Your task to perform on an android device: open app "Messages" (install if not already installed), go to login, and select forgot password Image 0: 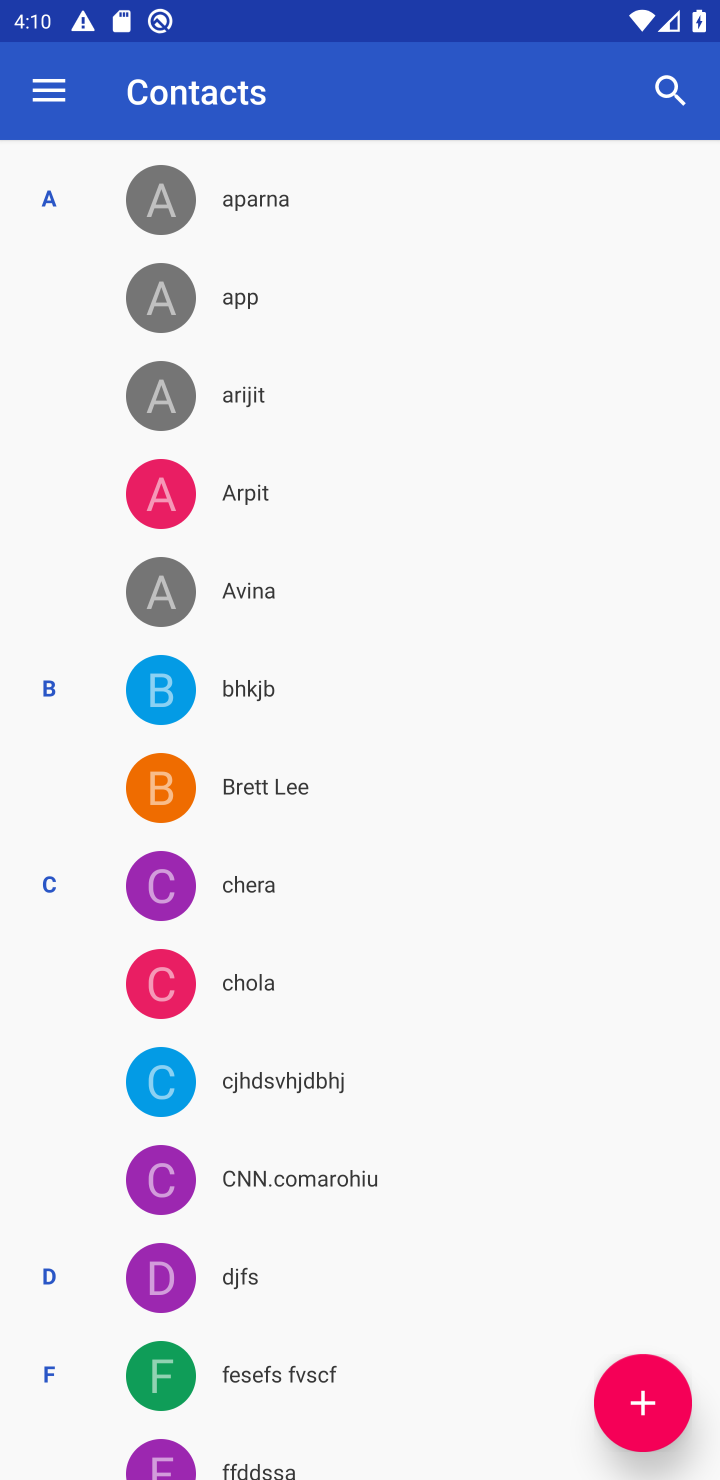
Step 0: press home button
Your task to perform on an android device: open app "Messages" (install if not already installed), go to login, and select forgot password Image 1: 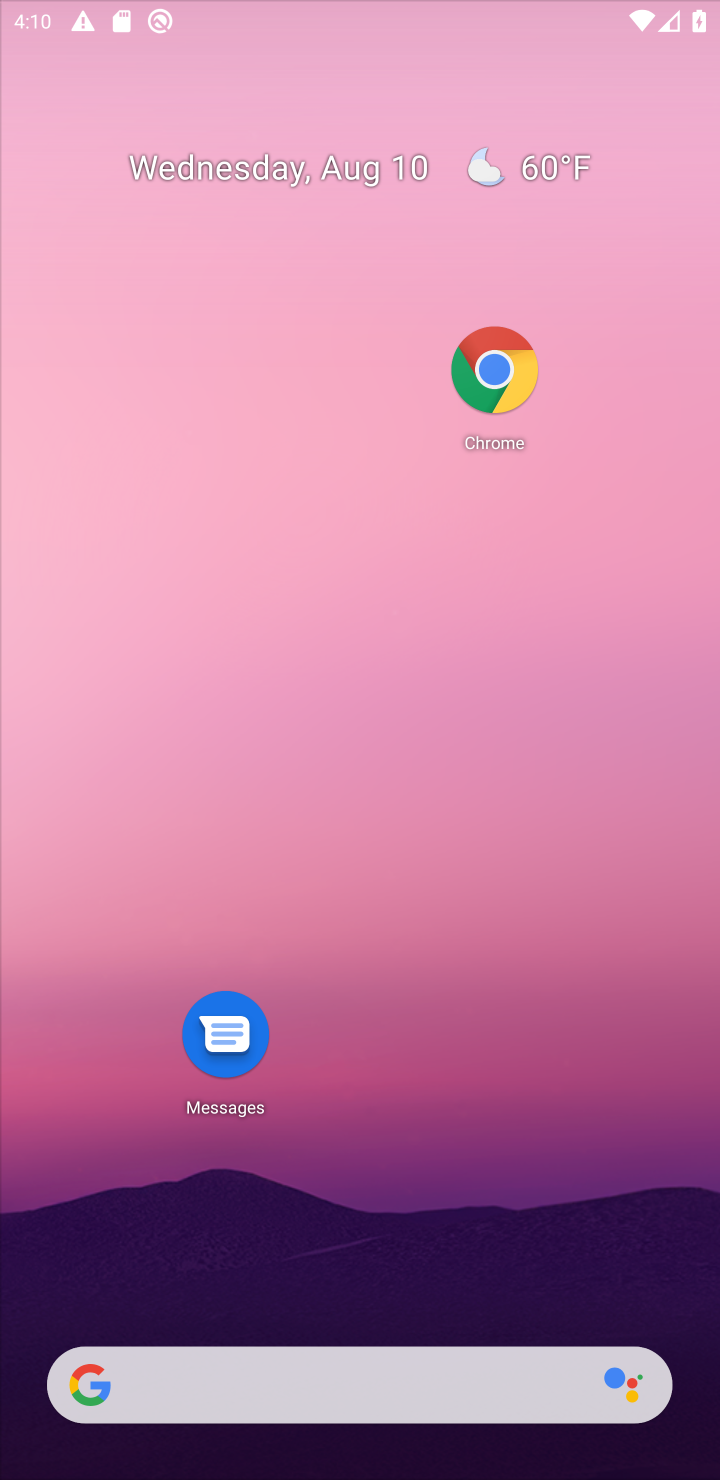
Step 1: drag from (220, 1337) to (377, 292)
Your task to perform on an android device: open app "Messages" (install if not already installed), go to login, and select forgot password Image 2: 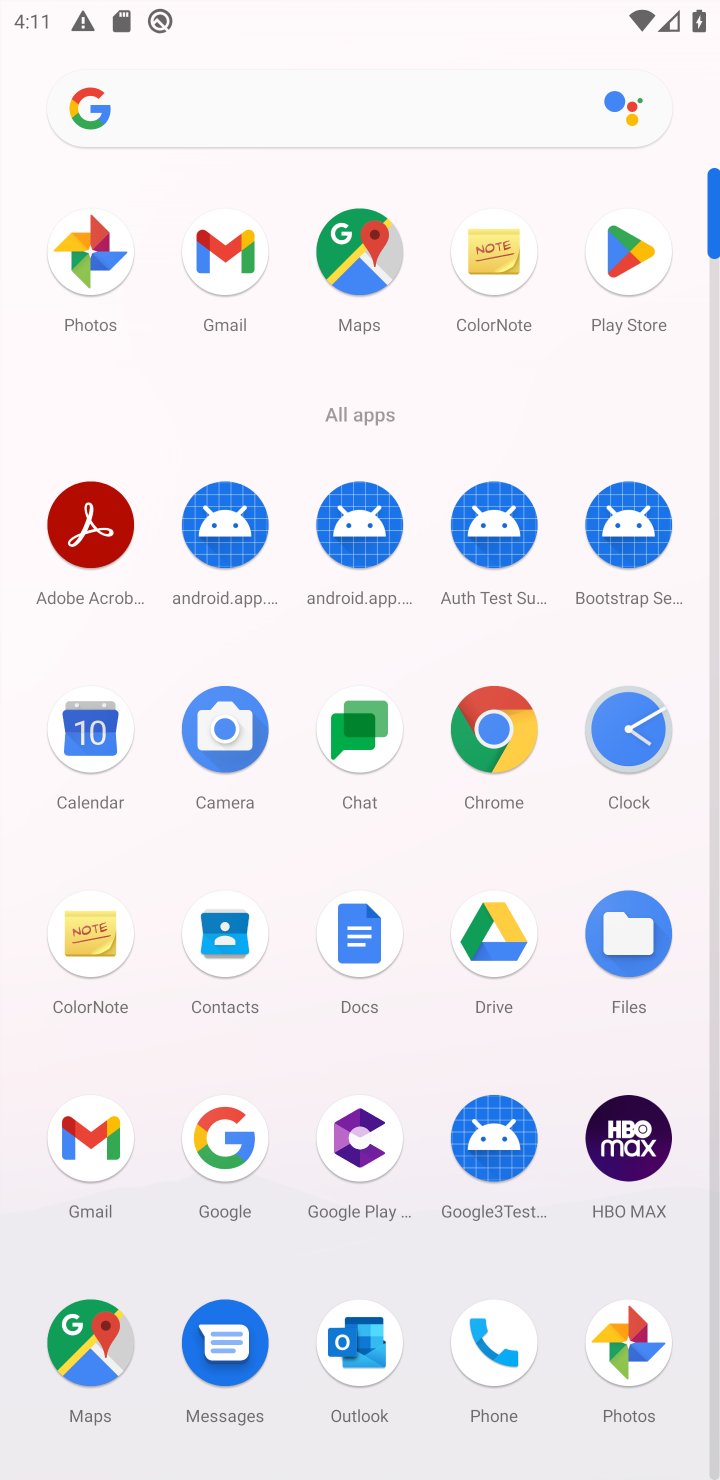
Step 2: click (620, 241)
Your task to perform on an android device: open app "Messages" (install if not already installed), go to login, and select forgot password Image 3: 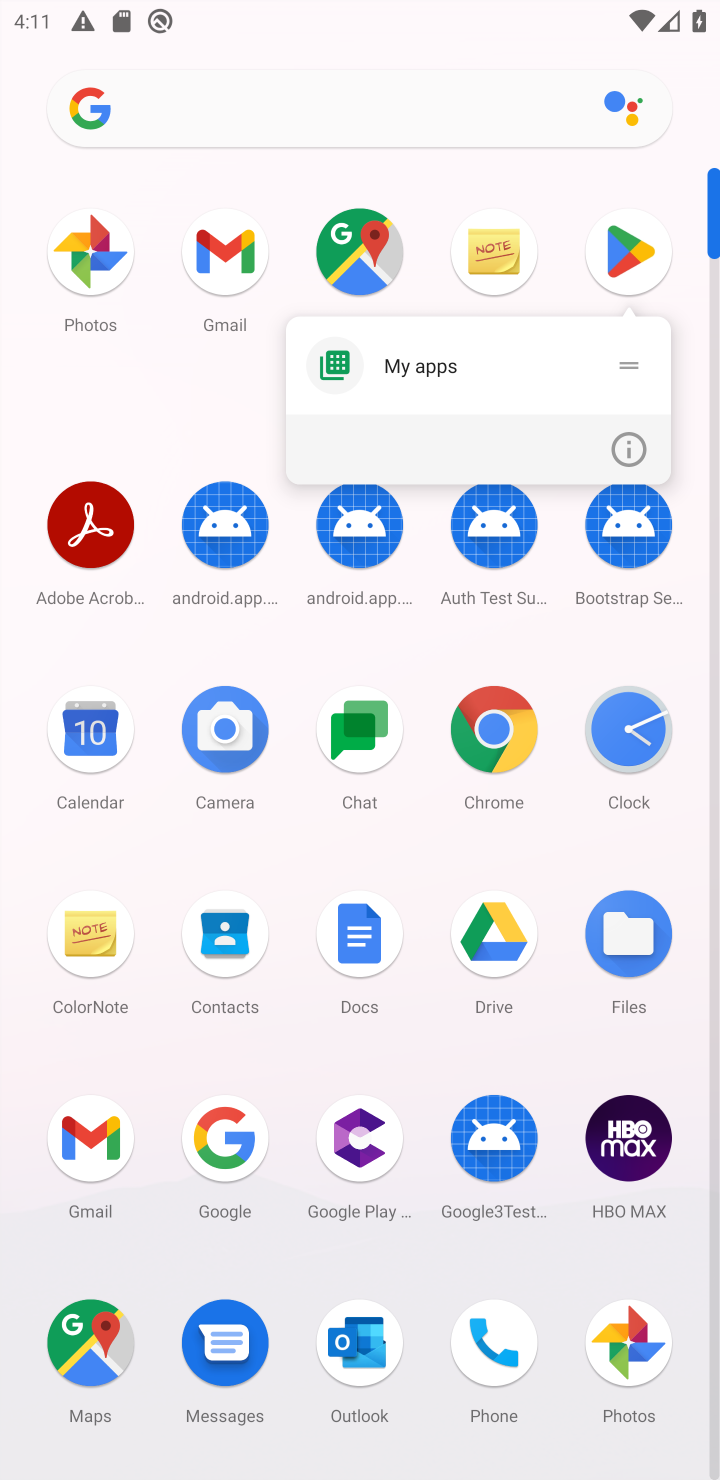
Step 3: click (650, 234)
Your task to perform on an android device: open app "Messages" (install if not already installed), go to login, and select forgot password Image 4: 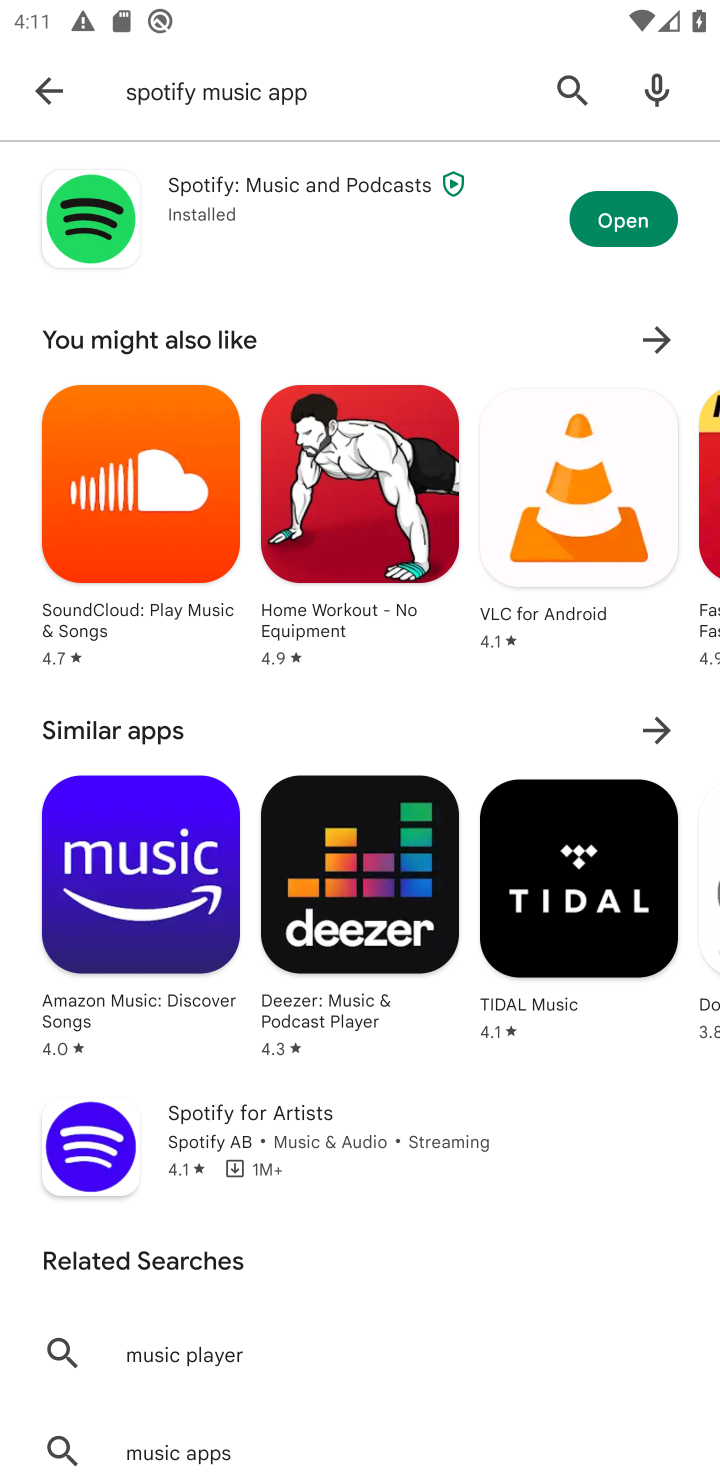
Step 4: click (52, 75)
Your task to perform on an android device: open app "Messages" (install if not already installed), go to login, and select forgot password Image 5: 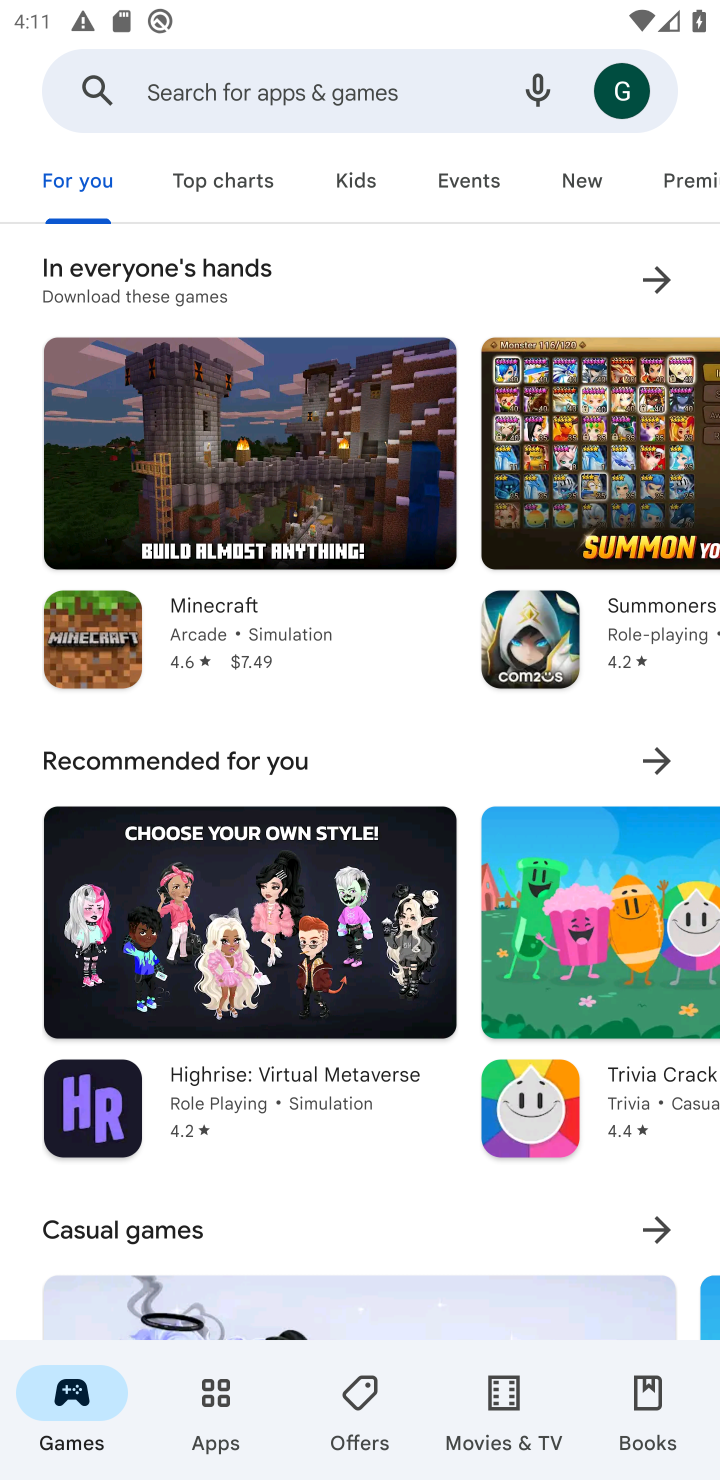
Step 5: click (305, 86)
Your task to perform on an android device: open app "Messages" (install if not already installed), go to login, and select forgot password Image 6: 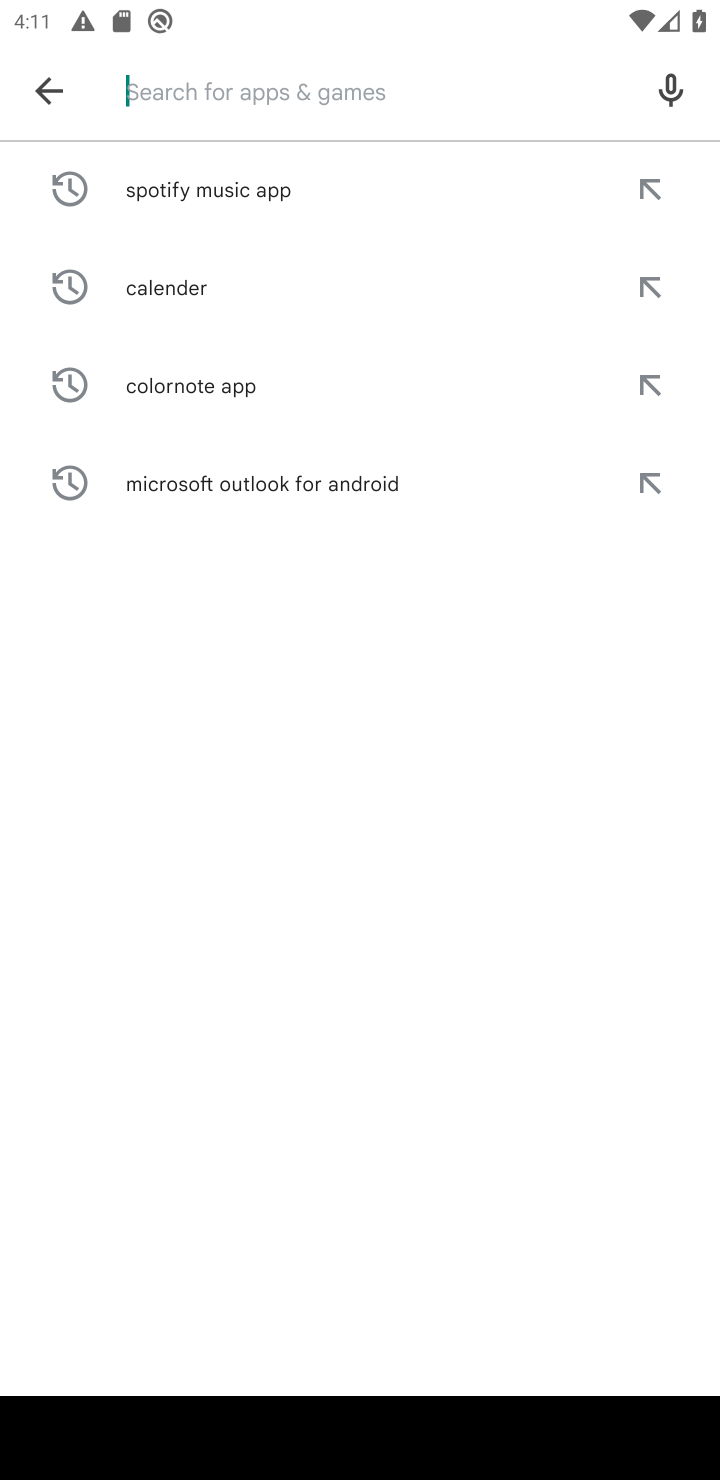
Step 6: type "messages "
Your task to perform on an android device: open app "Messages" (install if not already installed), go to login, and select forgot password Image 7: 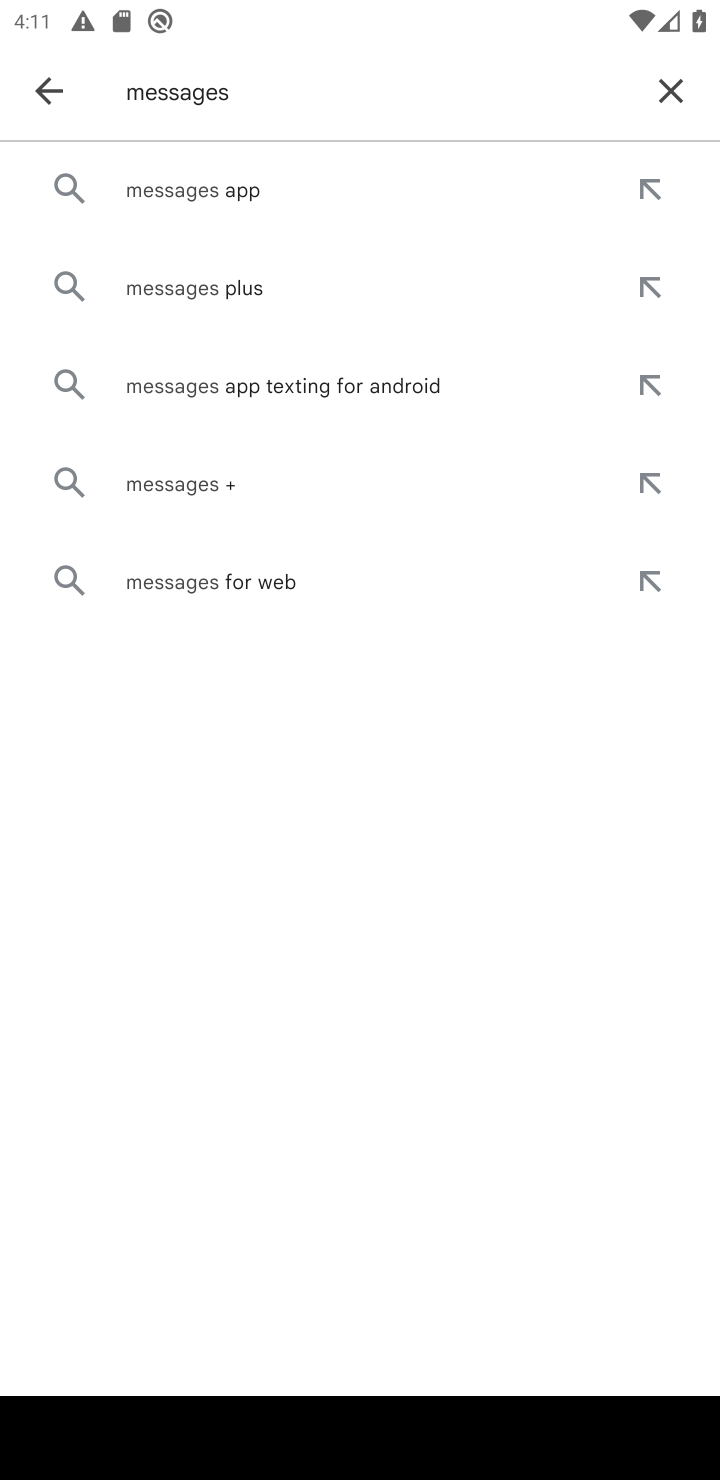
Step 7: click (216, 177)
Your task to perform on an android device: open app "Messages" (install if not already installed), go to login, and select forgot password Image 8: 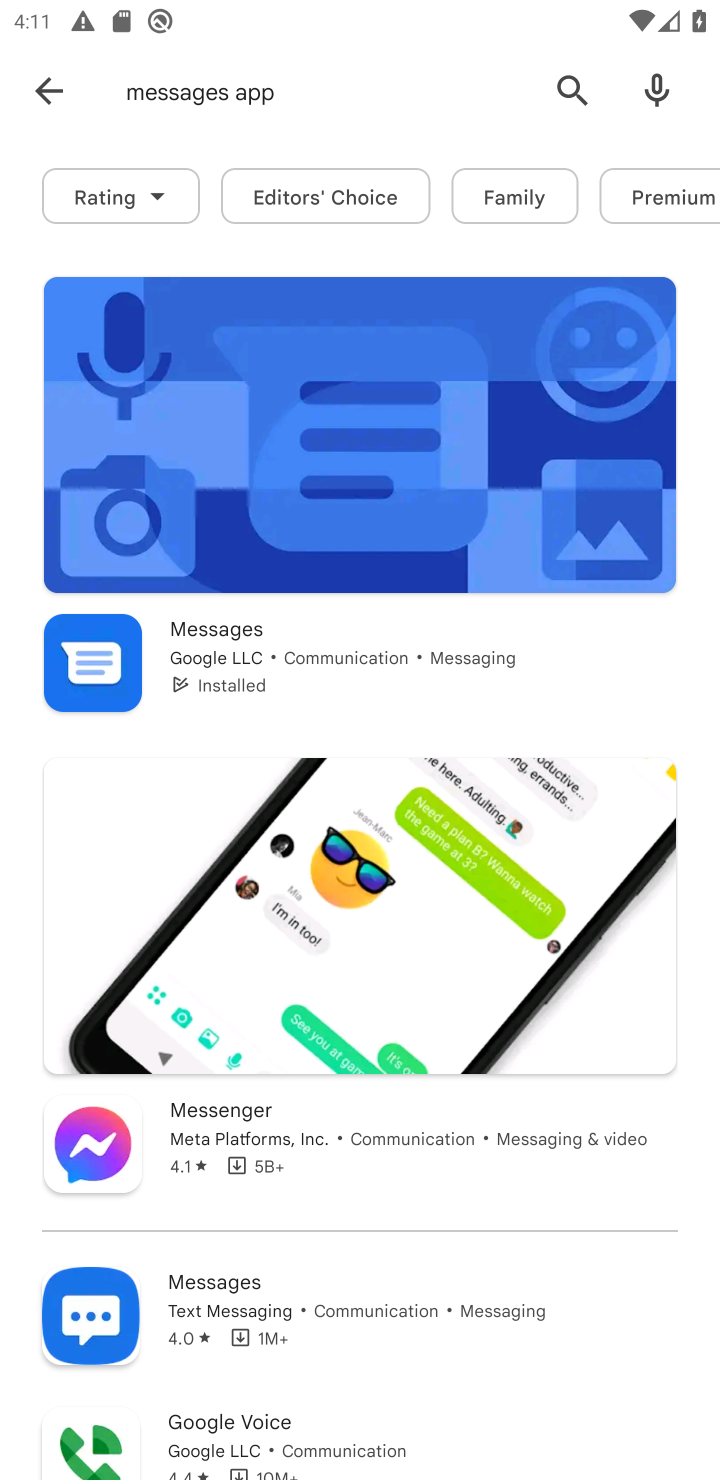
Step 8: click (186, 643)
Your task to perform on an android device: open app "Messages" (install if not already installed), go to login, and select forgot password Image 9: 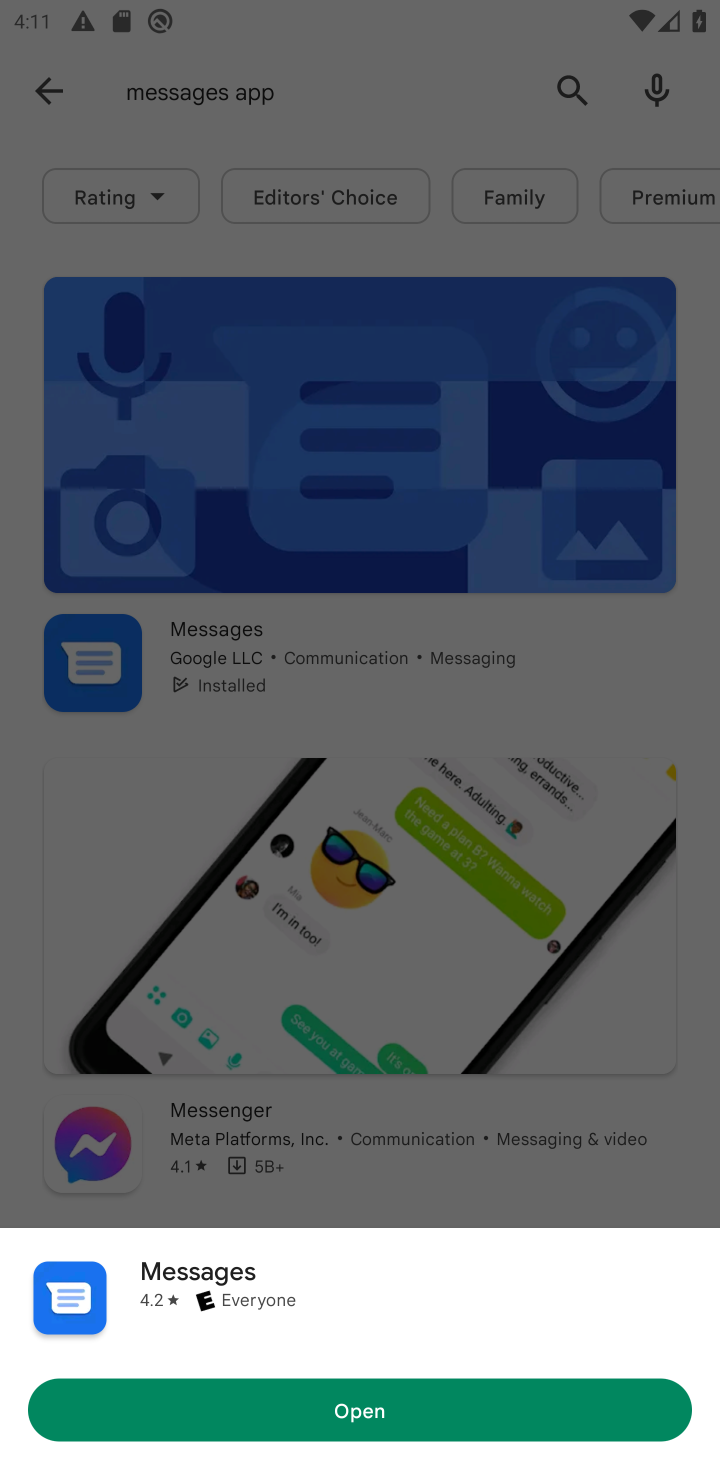
Step 9: click (409, 1395)
Your task to perform on an android device: open app "Messages" (install if not already installed), go to login, and select forgot password Image 10: 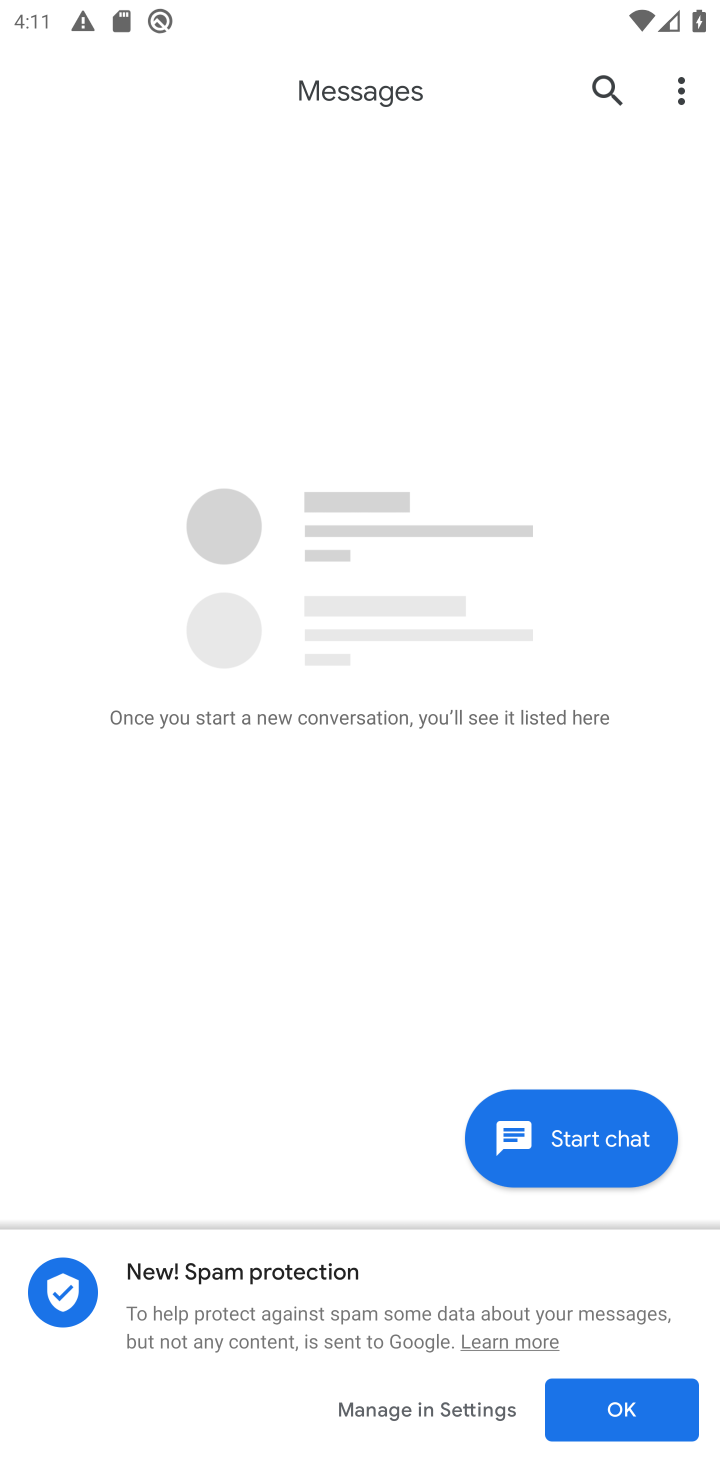
Step 10: click (583, 1405)
Your task to perform on an android device: open app "Messages" (install if not already installed), go to login, and select forgot password Image 11: 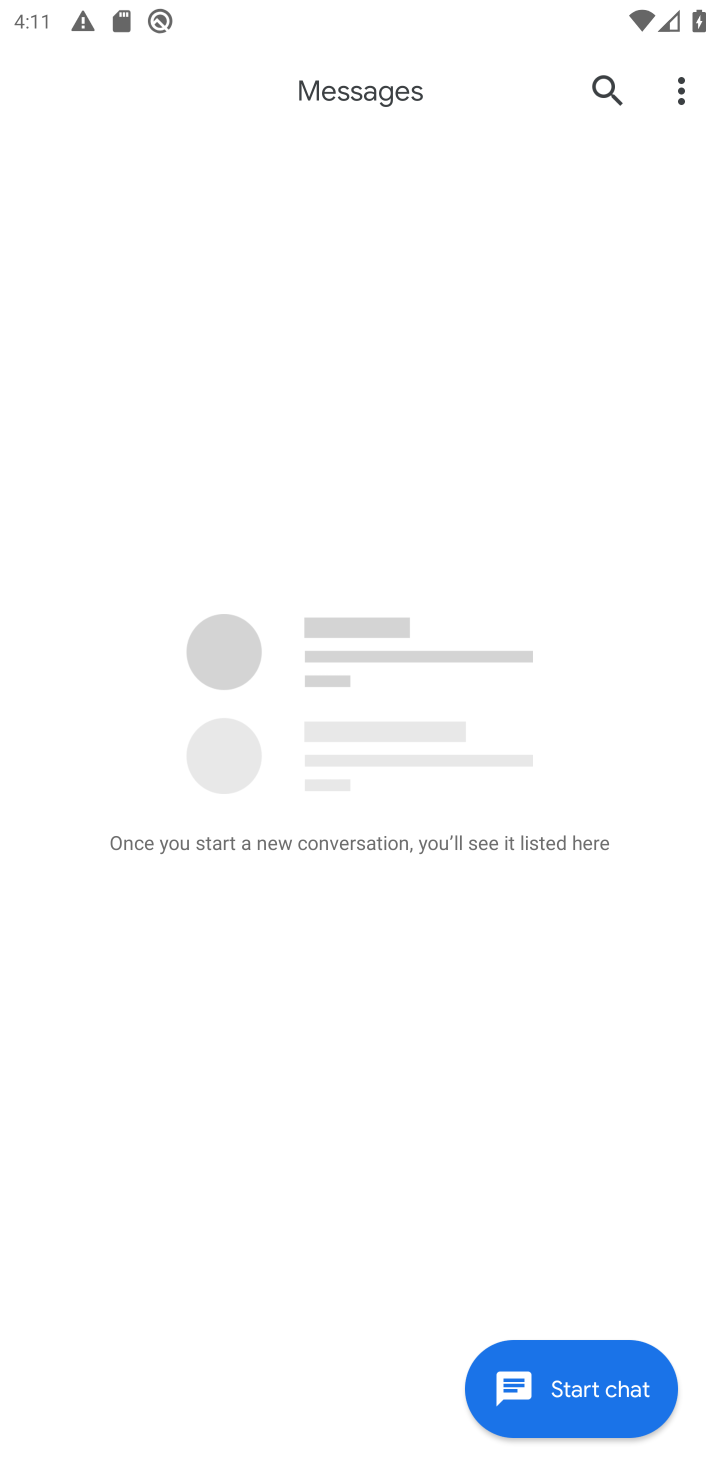
Step 11: click (661, 93)
Your task to perform on an android device: open app "Messages" (install if not already installed), go to login, and select forgot password Image 12: 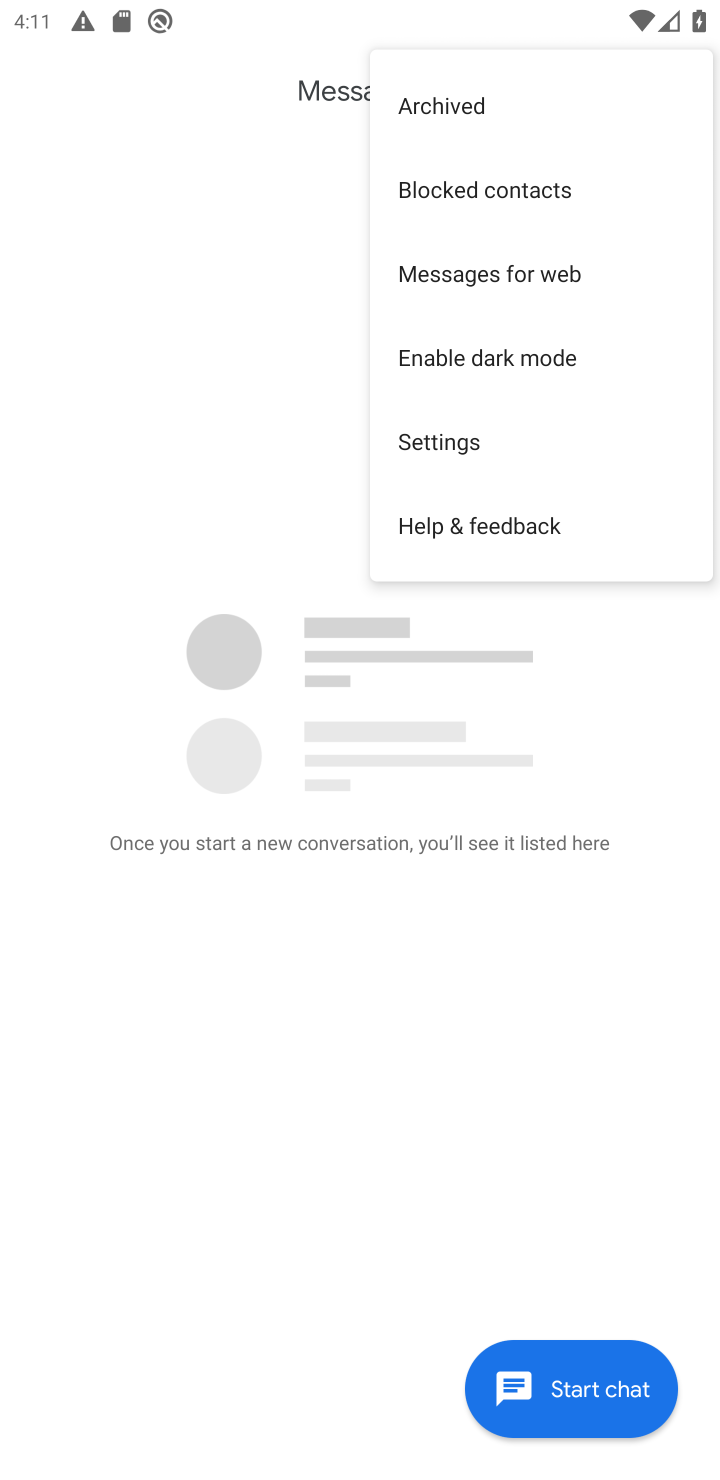
Step 12: click (504, 438)
Your task to perform on an android device: open app "Messages" (install if not already installed), go to login, and select forgot password Image 13: 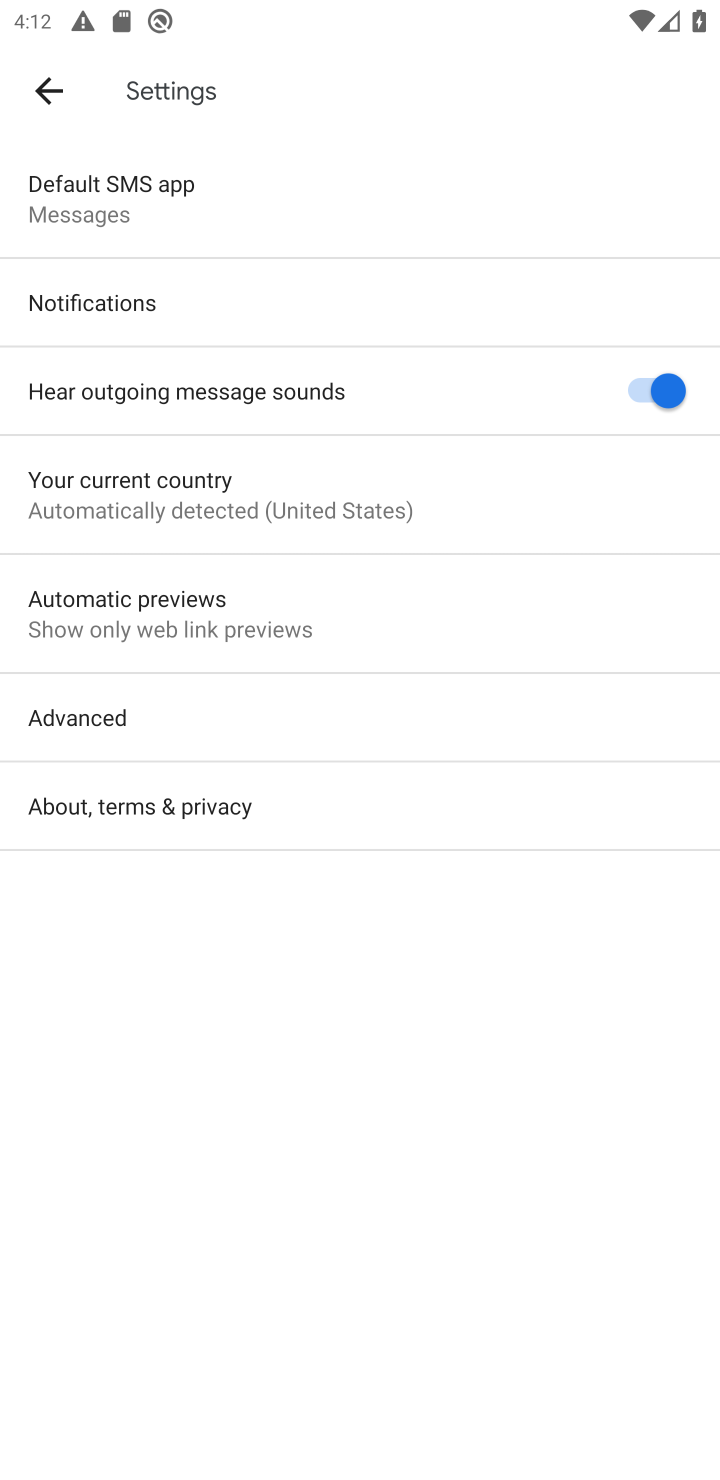
Step 13: click (47, 76)
Your task to perform on an android device: open app "Messages" (install if not already installed), go to login, and select forgot password Image 14: 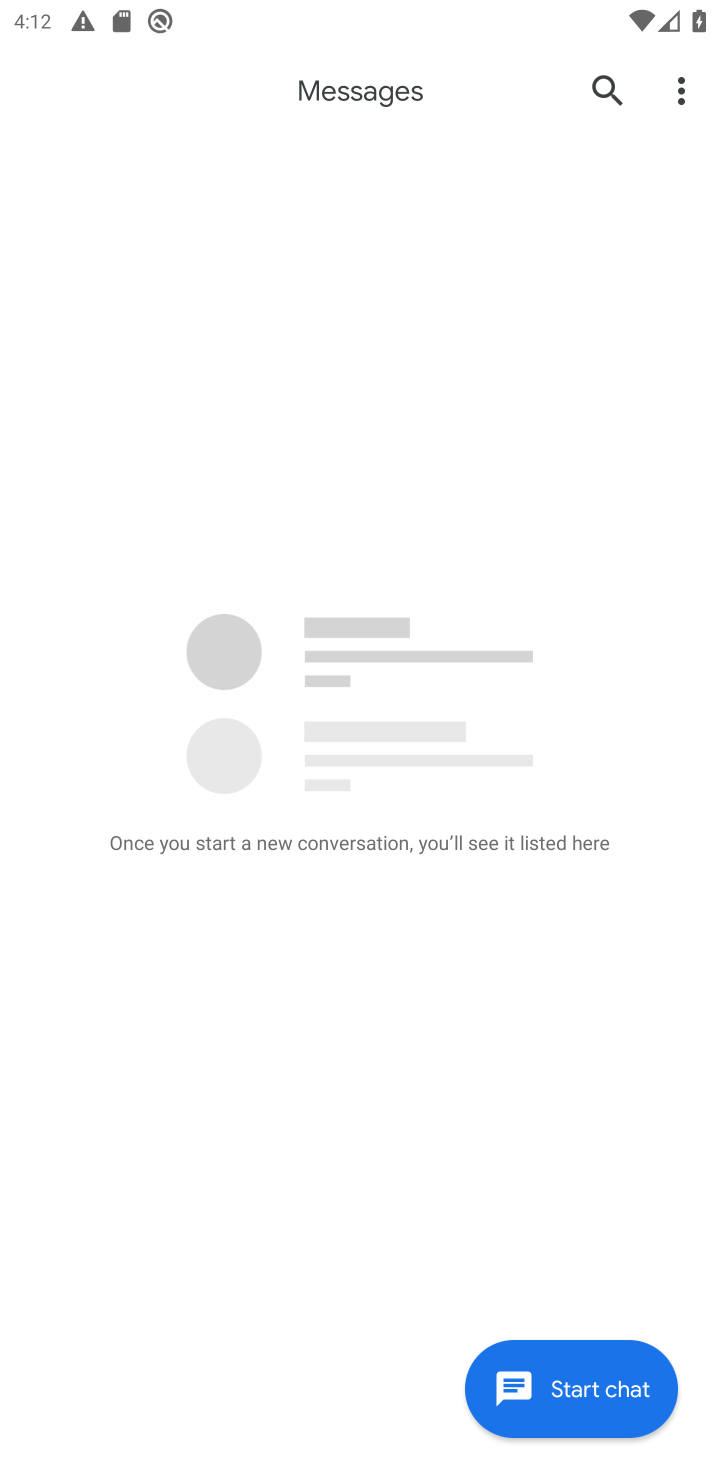
Step 14: click (679, 89)
Your task to perform on an android device: open app "Messages" (install if not already installed), go to login, and select forgot password Image 15: 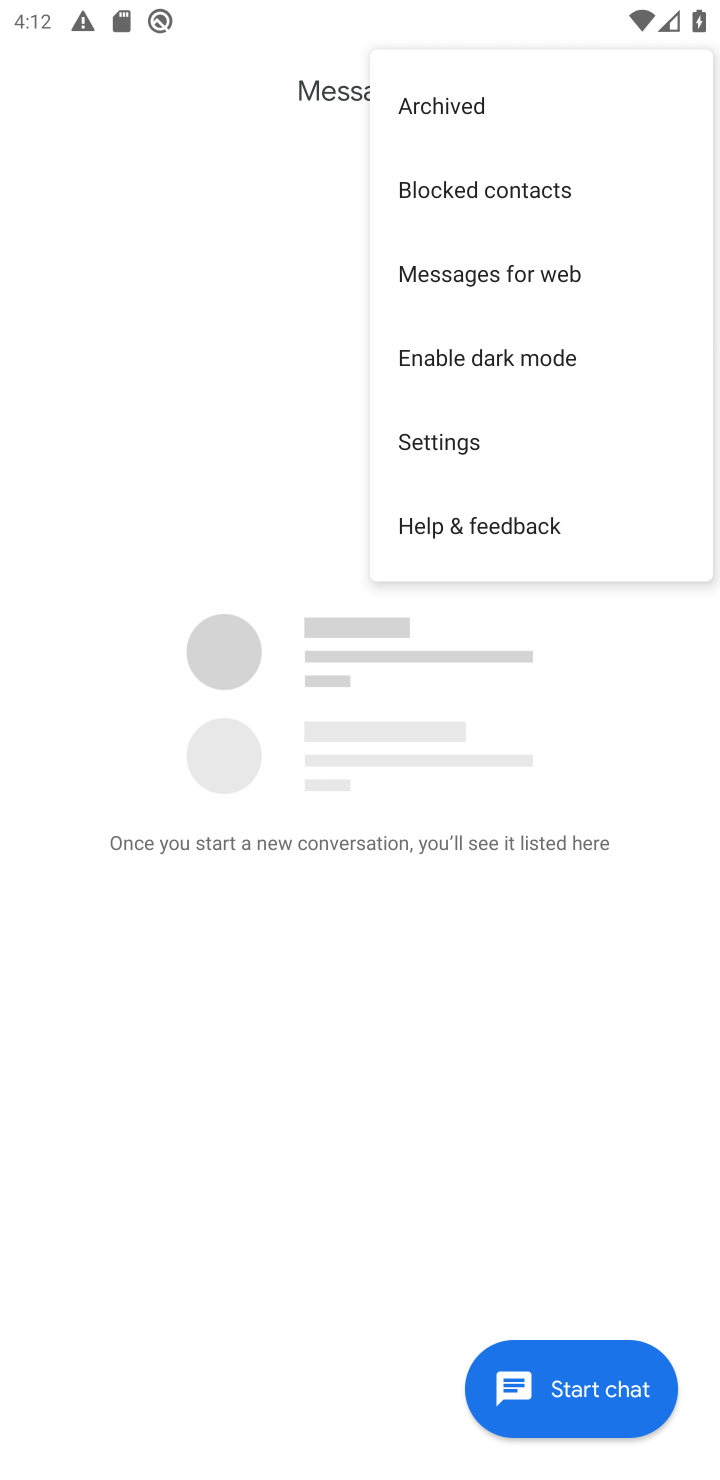
Step 15: click (481, 448)
Your task to perform on an android device: open app "Messages" (install if not already installed), go to login, and select forgot password Image 16: 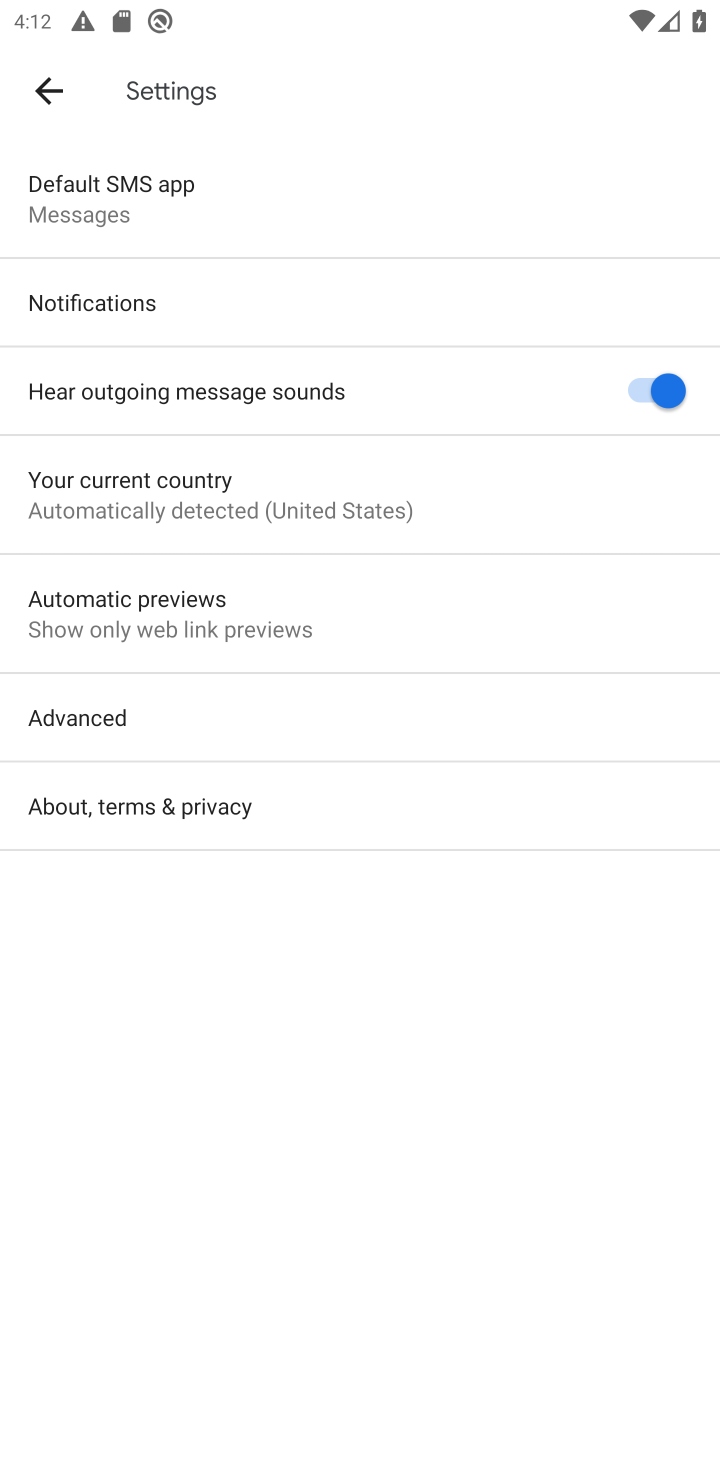
Step 16: click (206, 826)
Your task to perform on an android device: open app "Messages" (install if not already installed), go to login, and select forgot password Image 17: 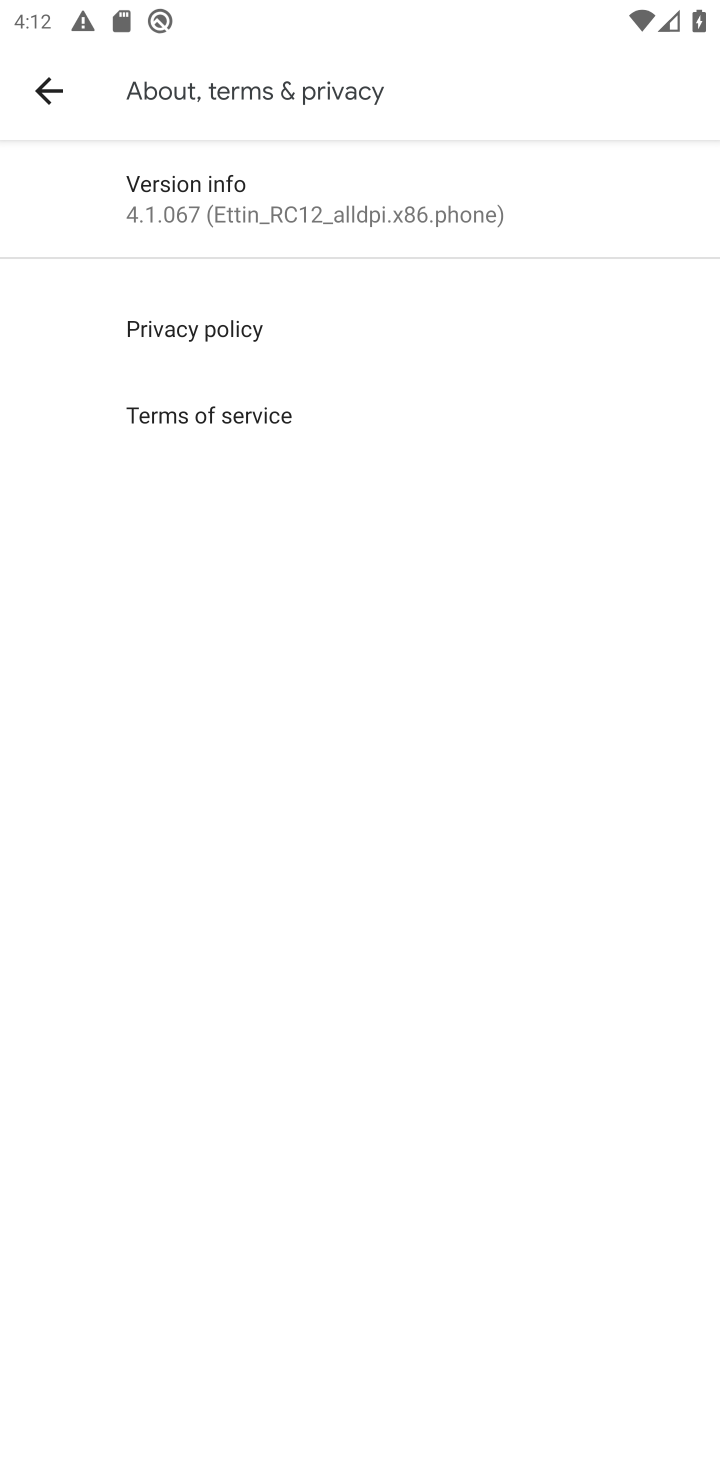
Step 17: task complete